Your task to perform on an android device: clear all cookies in the chrome app Image 0: 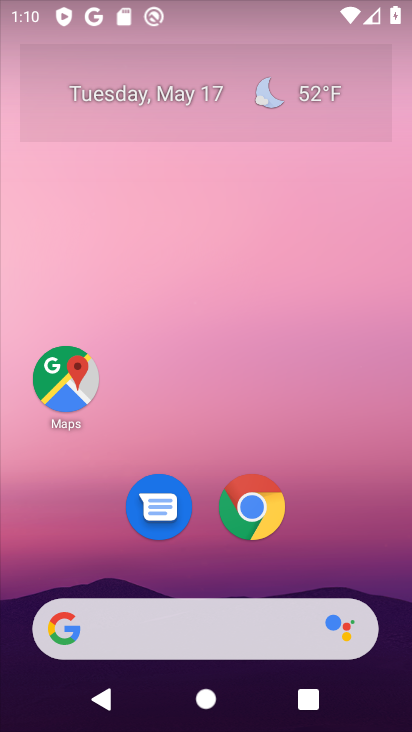
Step 0: click (257, 511)
Your task to perform on an android device: clear all cookies in the chrome app Image 1: 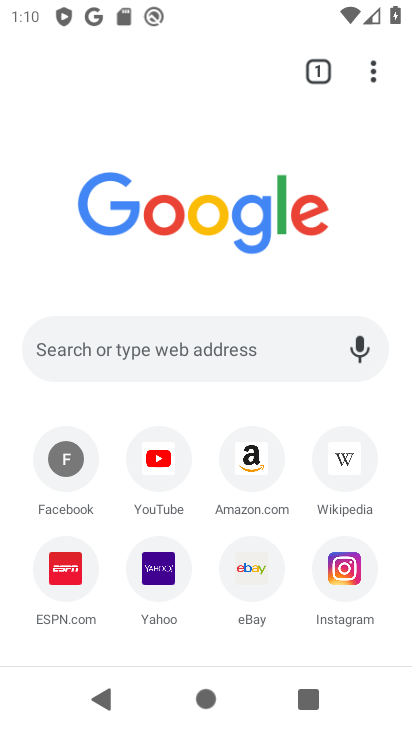
Step 1: click (360, 79)
Your task to perform on an android device: clear all cookies in the chrome app Image 2: 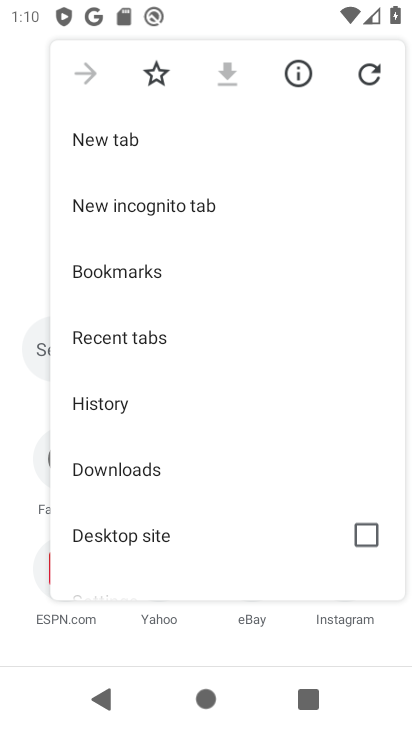
Step 2: drag from (197, 527) to (184, 113)
Your task to perform on an android device: clear all cookies in the chrome app Image 3: 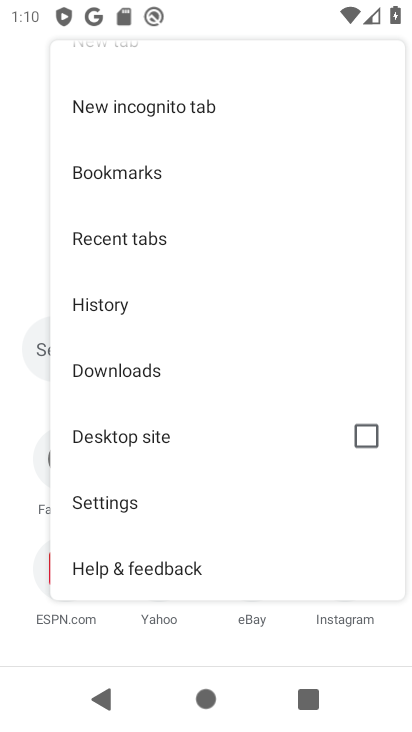
Step 3: click (155, 500)
Your task to perform on an android device: clear all cookies in the chrome app Image 4: 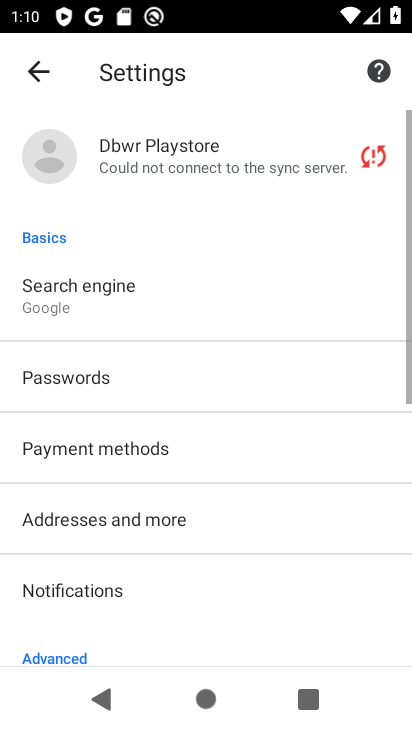
Step 4: drag from (214, 499) to (195, 104)
Your task to perform on an android device: clear all cookies in the chrome app Image 5: 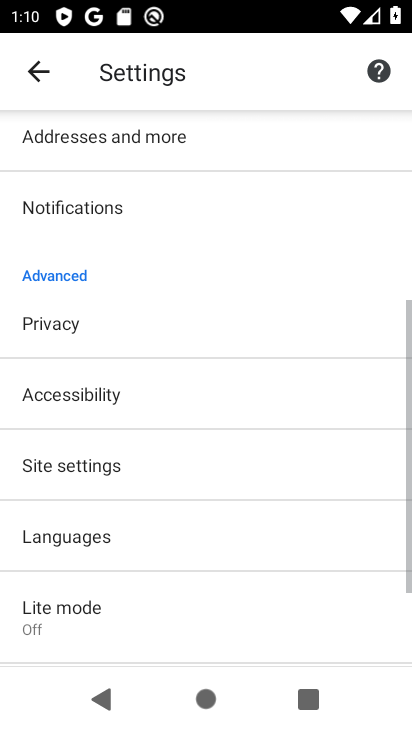
Step 5: drag from (208, 598) to (210, 246)
Your task to perform on an android device: clear all cookies in the chrome app Image 6: 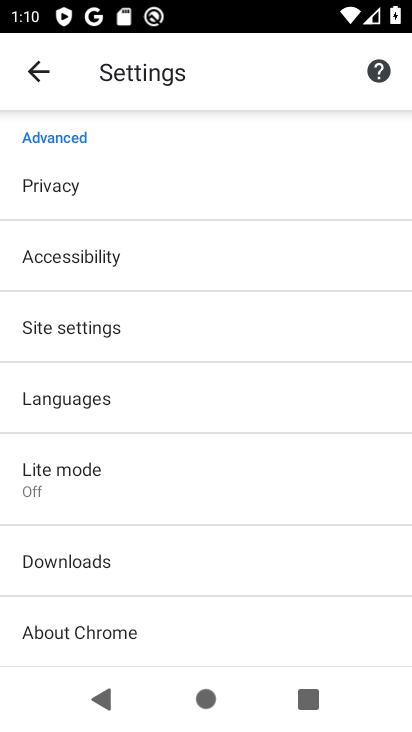
Step 6: drag from (218, 588) to (220, 206)
Your task to perform on an android device: clear all cookies in the chrome app Image 7: 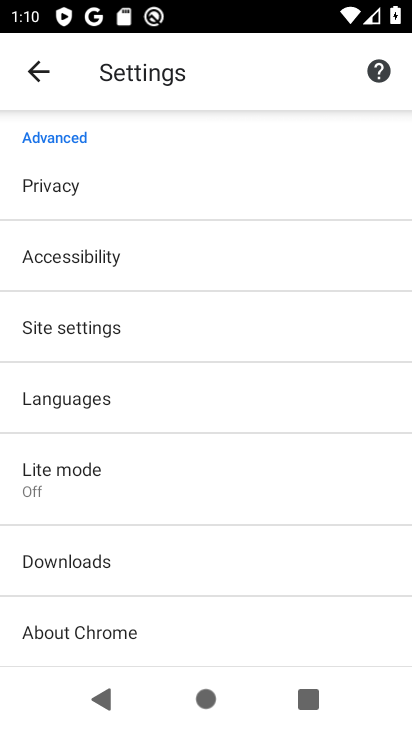
Step 7: click (86, 195)
Your task to perform on an android device: clear all cookies in the chrome app Image 8: 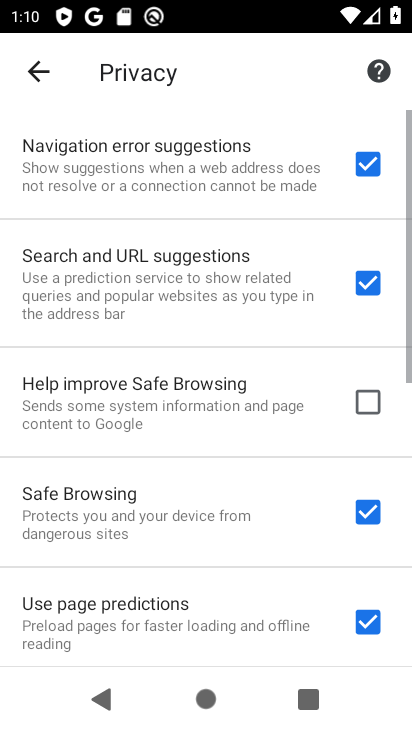
Step 8: drag from (233, 573) to (249, 95)
Your task to perform on an android device: clear all cookies in the chrome app Image 9: 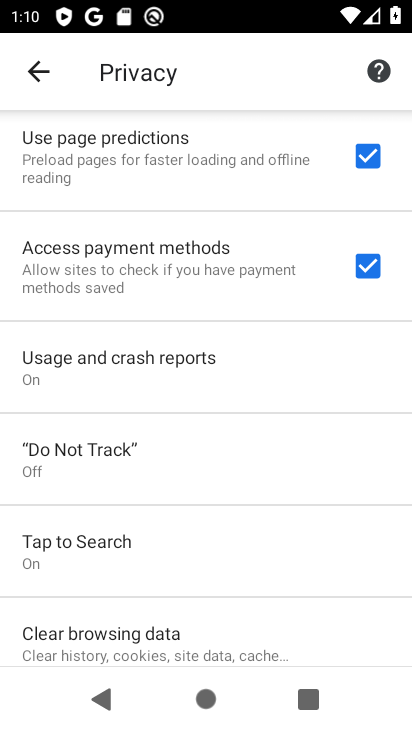
Step 9: click (118, 636)
Your task to perform on an android device: clear all cookies in the chrome app Image 10: 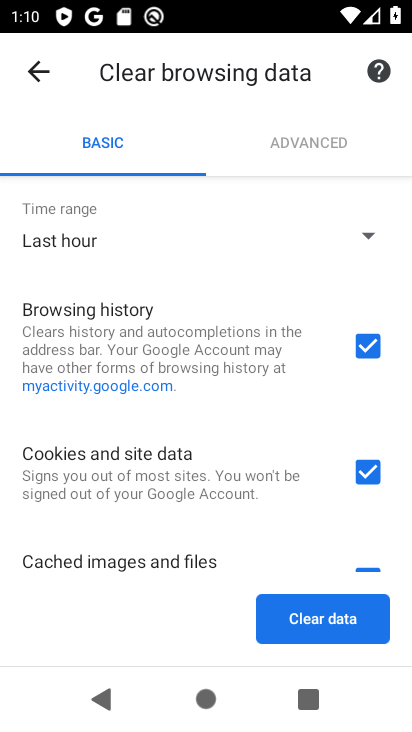
Step 10: click (367, 344)
Your task to perform on an android device: clear all cookies in the chrome app Image 11: 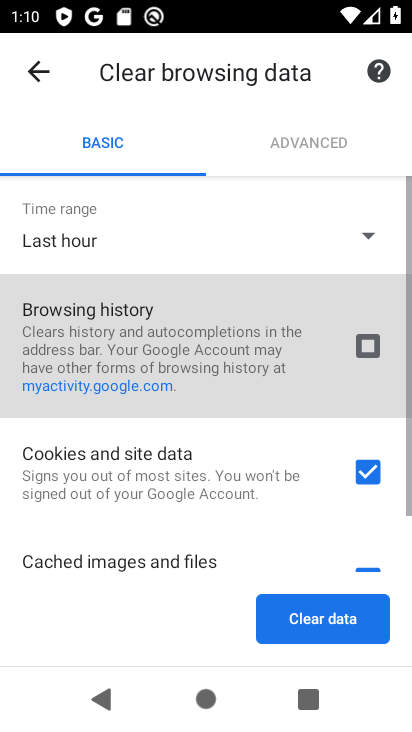
Step 11: drag from (299, 514) to (279, 287)
Your task to perform on an android device: clear all cookies in the chrome app Image 12: 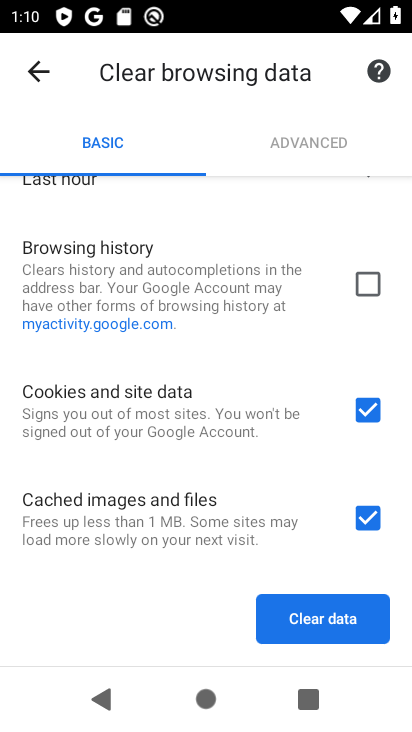
Step 12: click (364, 518)
Your task to perform on an android device: clear all cookies in the chrome app Image 13: 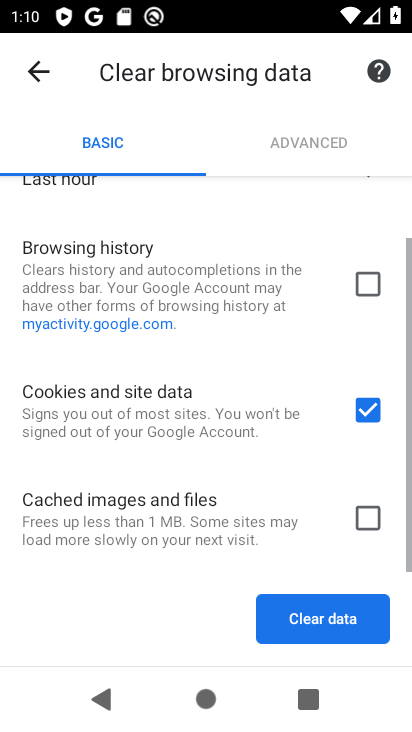
Step 13: click (321, 618)
Your task to perform on an android device: clear all cookies in the chrome app Image 14: 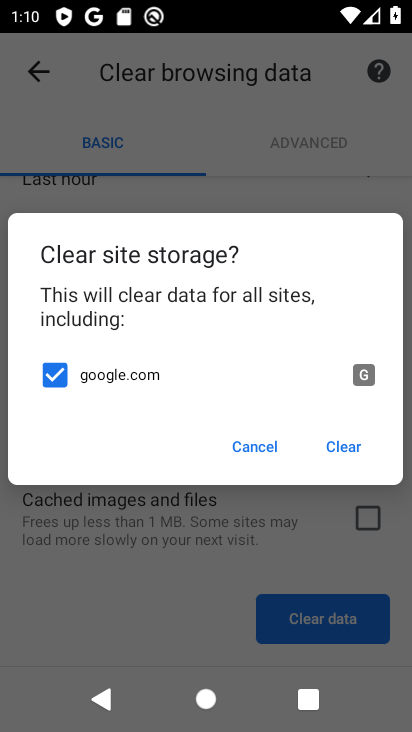
Step 14: click (339, 459)
Your task to perform on an android device: clear all cookies in the chrome app Image 15: 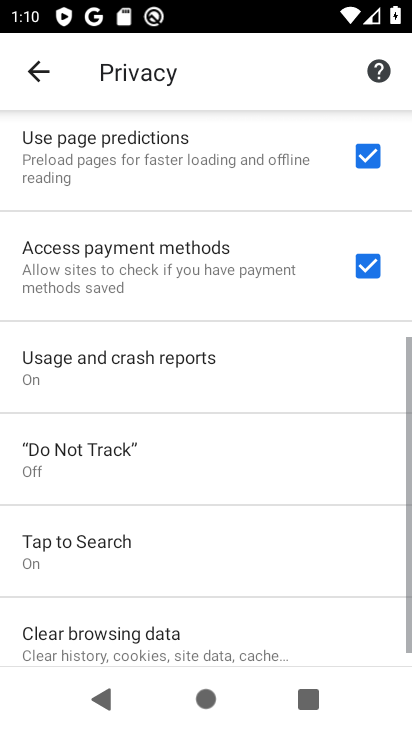
Step 15: task complete